Your task to perform on an android device: Open location settings Image 0: 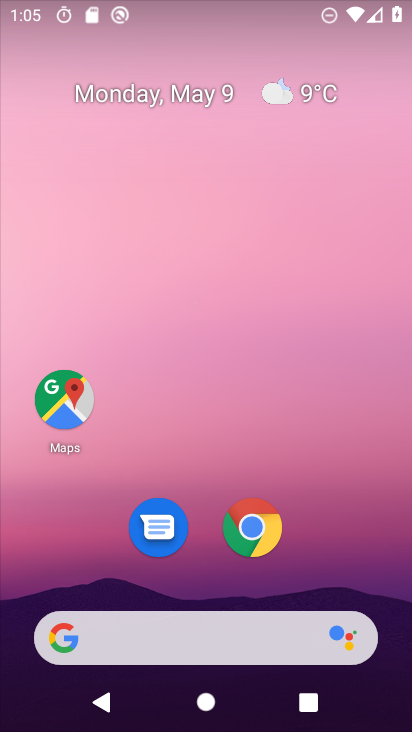
Step 0: drag from (211, 578) to (320, 53)
Your task to perform on an android device: Open location settings Image 1: 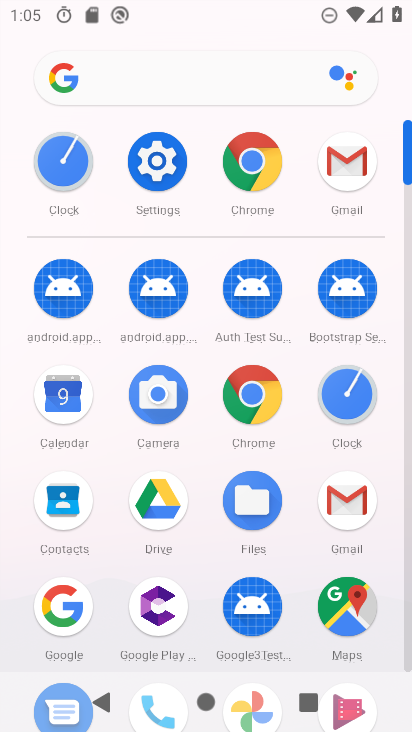
Step 1: click (162, 170)
Your task to perform on an android device: Open location settings Image 2: 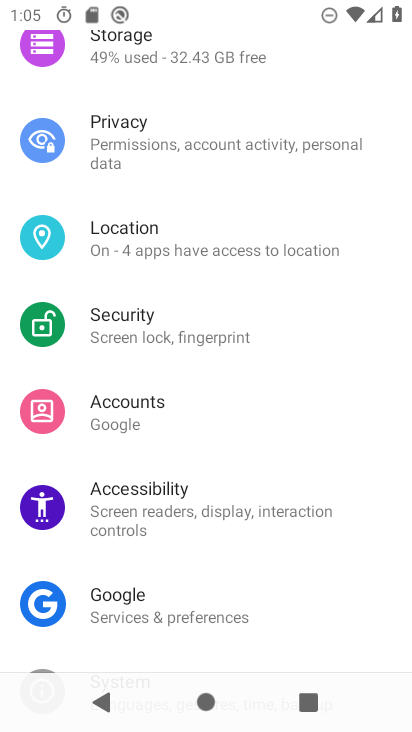
Step 2: click (160, 250)
Your task to perform on an android device: Open location settings Image 3: 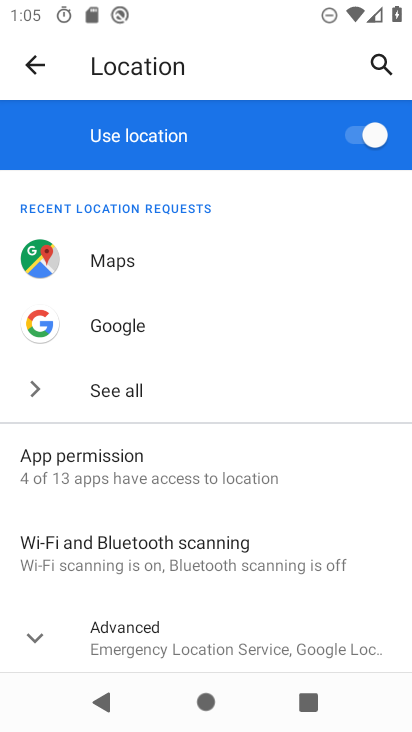
Step 3: task complete